Your task to perform on an android device: Open Google Image 0: 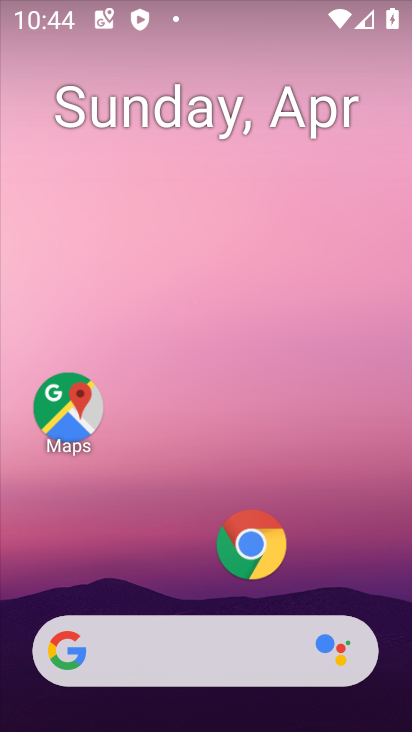
Step 0: drag from (181, 562) to (230, 199)
Your task to perform on an android device: Open Google Image 1: 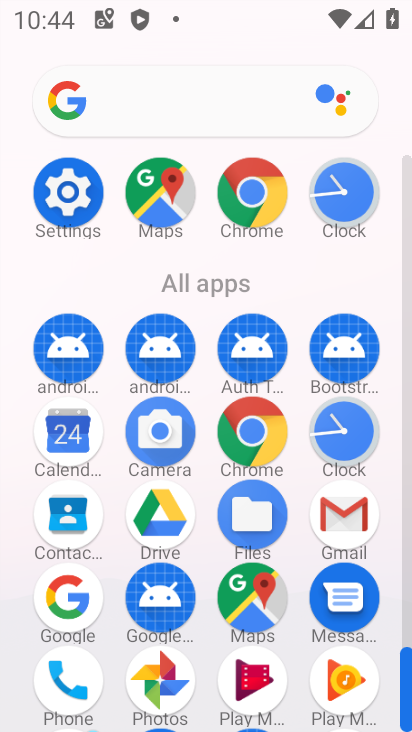
Step 1: click (76, 611)
Your task to perform on an android device: Open Google Image 2: 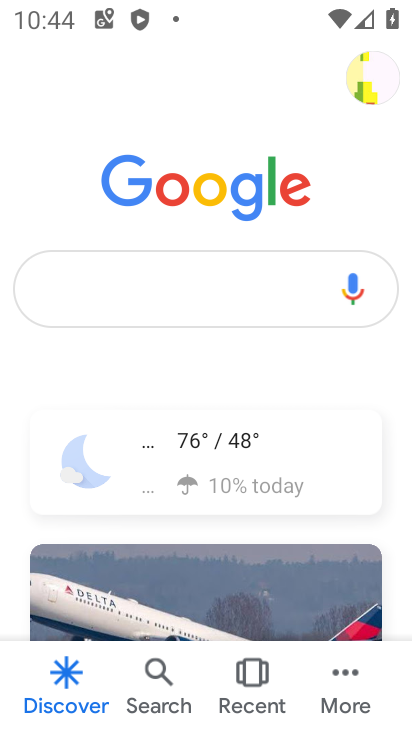
Step 2: task complete